Your task to perform on an android device: Show me popular videos on Youtube Image 0: 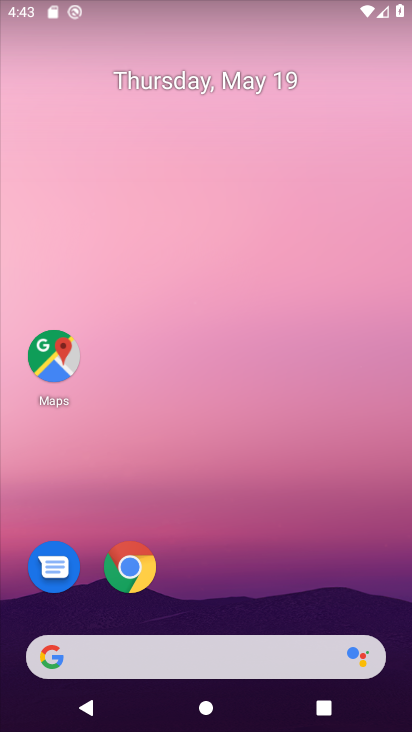
Step 0: drag from (283, 549) to (205, 61)
Your task to perform on an android device: Show me popular videos on Youtube Image 1: 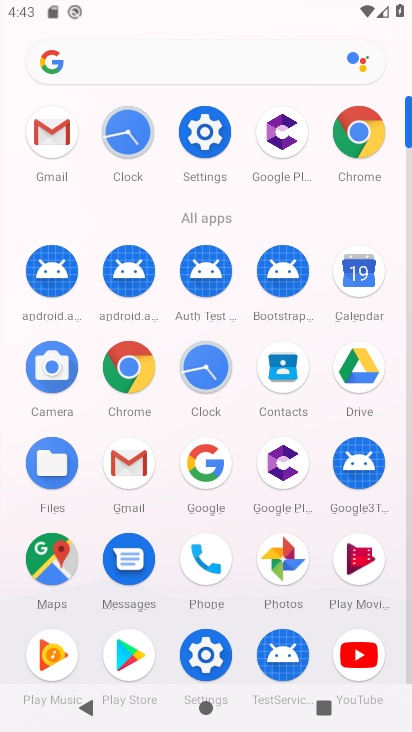
Step 1: click (358, 653)
Your task to perform on an android device: Show me popular videos on Youtube Image 2: 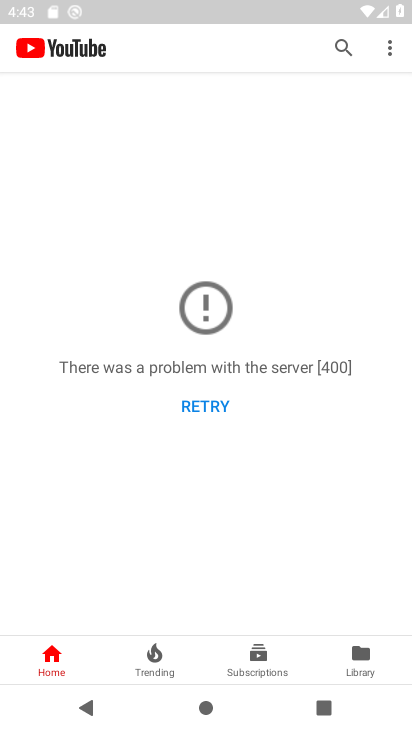
Step 2: click (340, 50)
Your task to perform on an android device: Show me popular videos on Youtube Image 3: 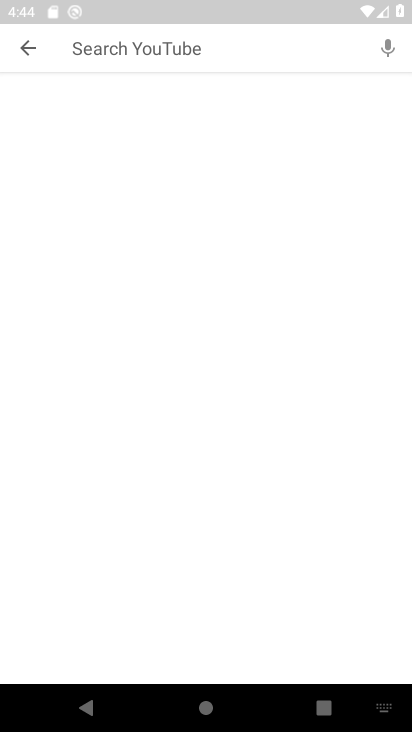
Step 3: type "popular videos"
Your task to perform on an android device: Show me popular videos on Youtube Image 4: 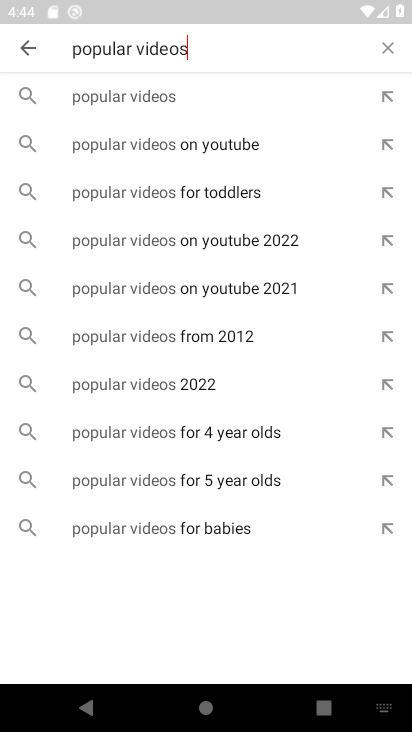
Step 4: click (159, 100)
Your task to perform on an android device: Show me popular videos on Youtube Image 5: 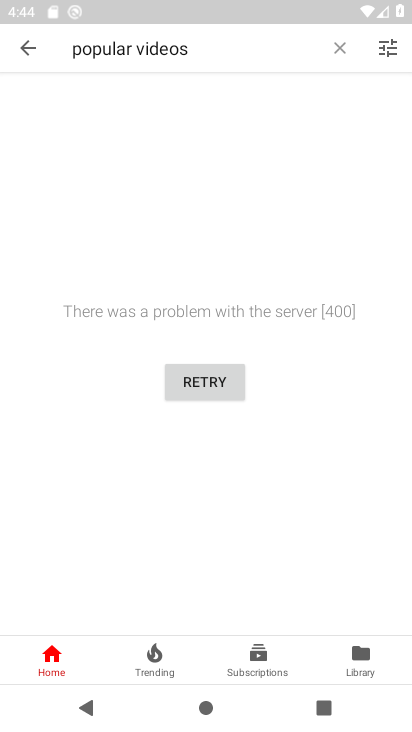
Step 5: task complete